Your task to perform on an android device: Open accessibility settings Image 0: 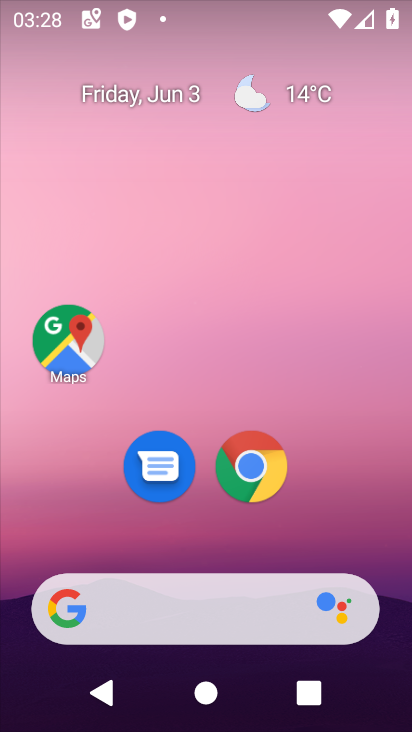
Step 0: click (230, 179)
Your task to perform on an android device: Open accessibility settings Image 1: 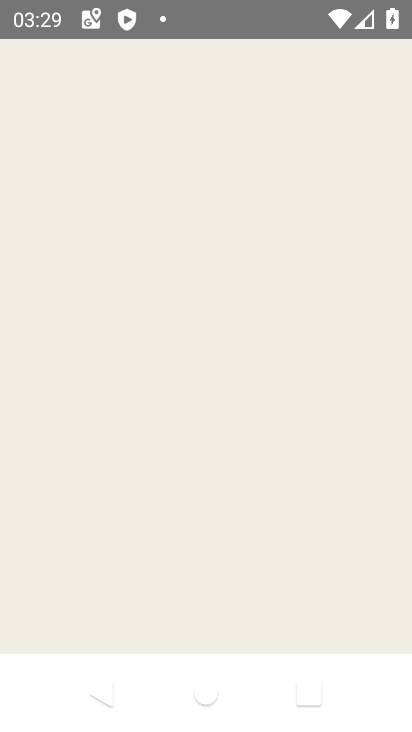
Step 1: press home button
Your task to perform on an android device: Open accessibility settings Image 2: 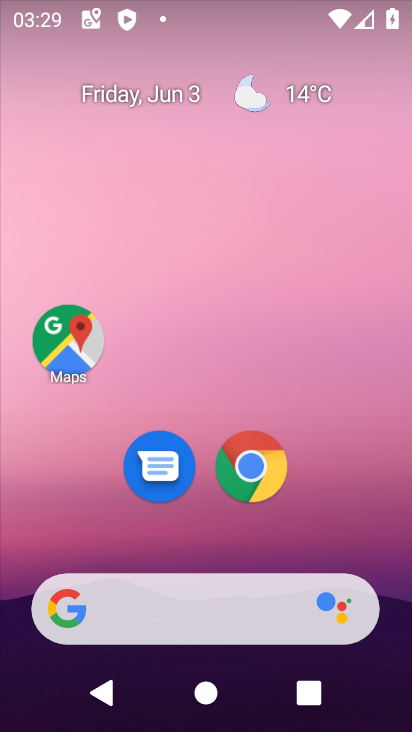
Step 2: drag from (203, 549) to (204, 111)
Your task to perform on an android device: Open accessibility settings Image 3: 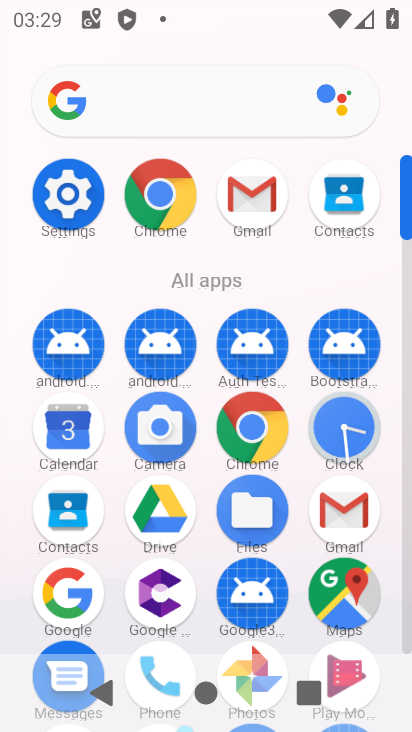
Step 3: drag from (208, 549) to (229, 135)
Your task to perform on an android device: Open accessibility settings Image 4: 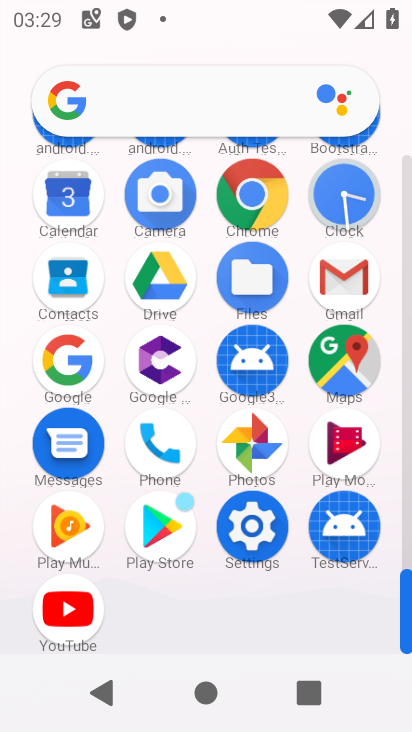
Step 4: click (253, 518)
Your task to perform on an android device: Open accessibility settings Image 5: 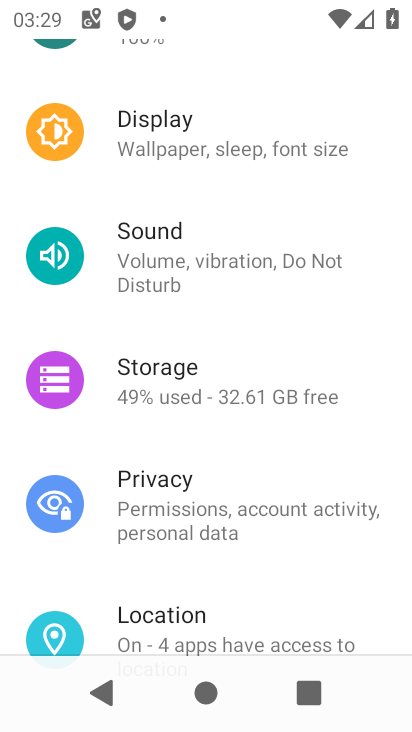
Step 5: drag from (195, 584) to (210, 7)
Your task to perform on an android device: Open accessibility settings Image 6: 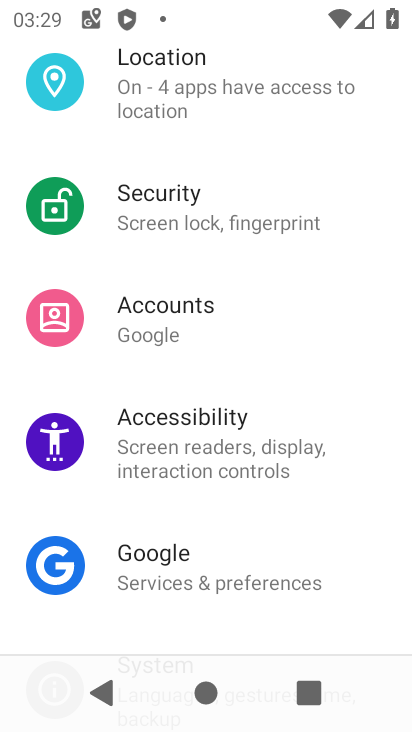
Step 6: click (195, 448)
Your task to perform on an android device: Open accessibility settings Image 7: 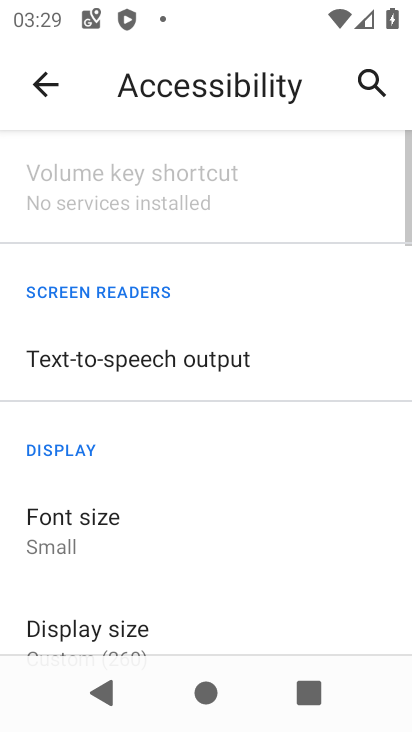
Step 7: task complete